Your task to perform on an android device: Open calendar and show me the first week of next month Image 0: 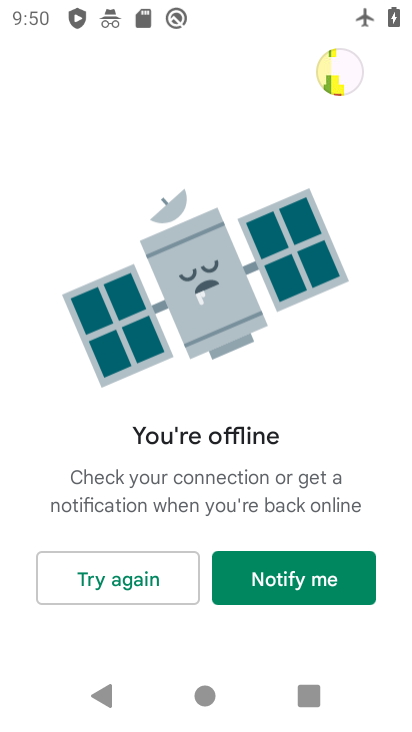
Step 0: press home button
Your task to perform on an android device: Open calendar and show me the first week of next month Image 1: 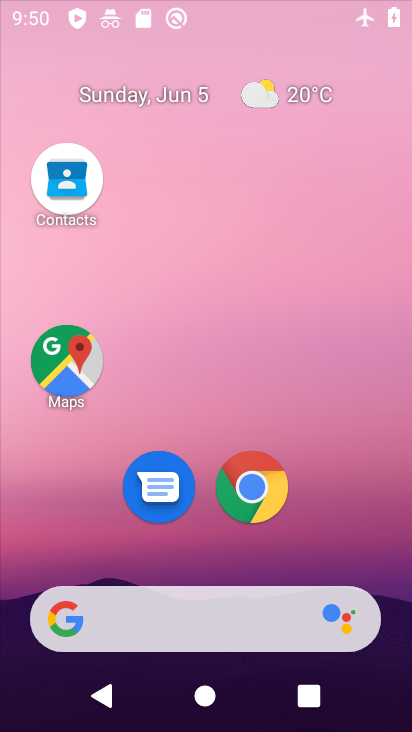
Step 1: drag from (205, 615) to (231, 179)
Your task to perform on an android device: Open calendar and show me the first week of next month Image 2: 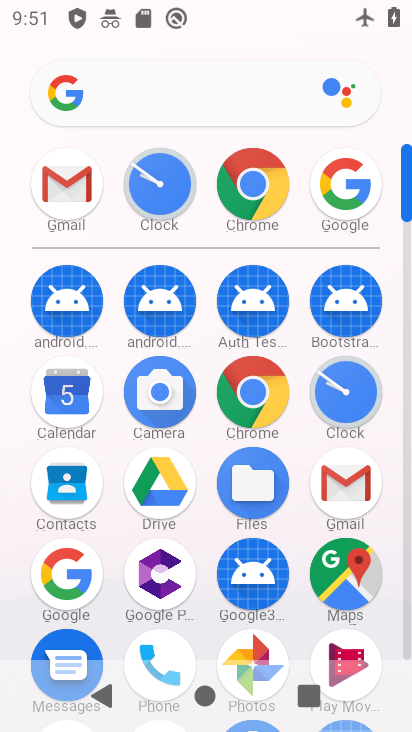
Step 2: click (72, 402)
Your task to perform on an android device: Open calendar and show me the first week of next month Image 3: 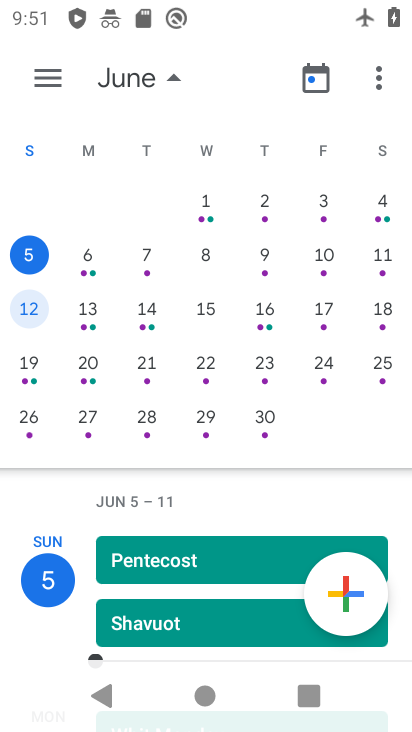
Step 3: task complete